Your task to perform on an android device: delete a single message in the gmail app Image 0: 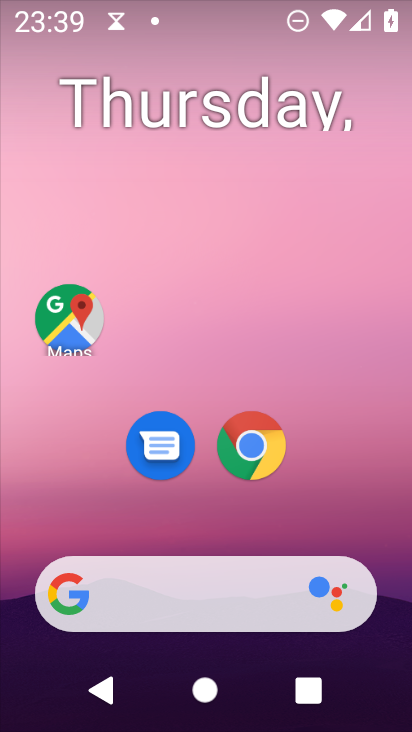
Step 0: drag from (240, 727) to (232, 51)
Your task to perform on an android device: delete a single message in the gmail app Image 1: 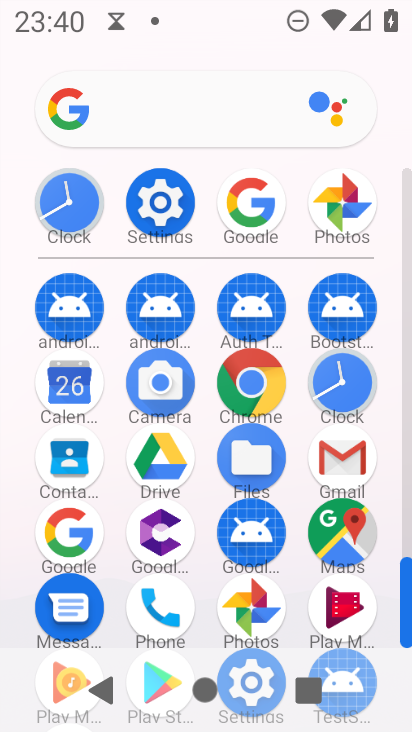
Step 1: click (337, 463)
Your task to perform on an android device: delete a single message in the gmail app Image 2: 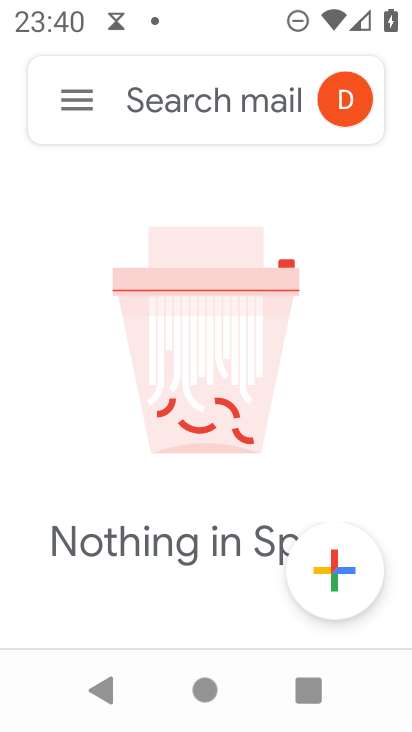
Step 2: click (83, 99)
Your task to perform on an android device: delete a single message in the gmail app Image 3: 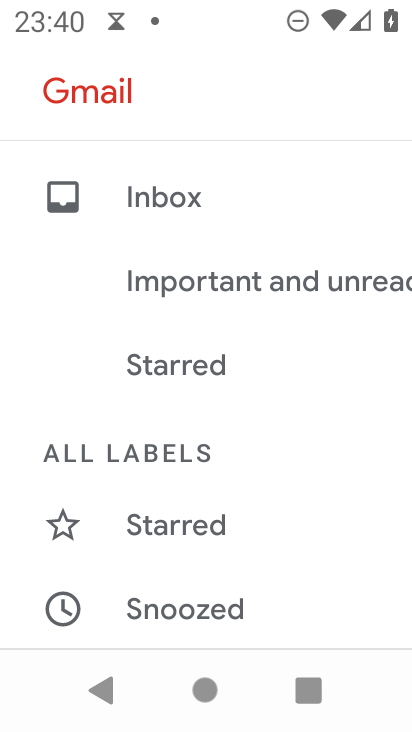
Step 3: click (164, 188)
Your task to perform on an android device: delete a single message in the gmail app Image 4: 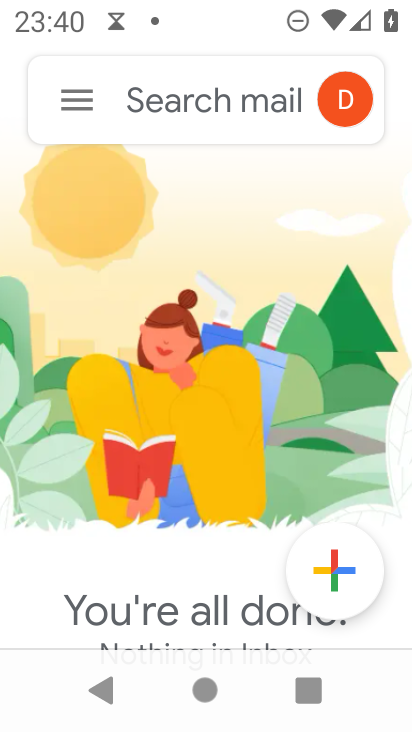
Step 4: task complete